Your task to perform on an android device: When is my next appointment? Image 0: 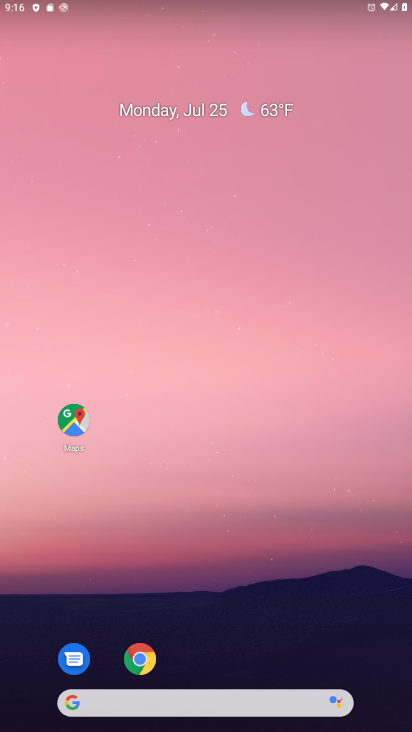
Step 0: drag from (192, 728) to (207, 86)
Your task to perform on an android device: When is my next appointment? Image 1: 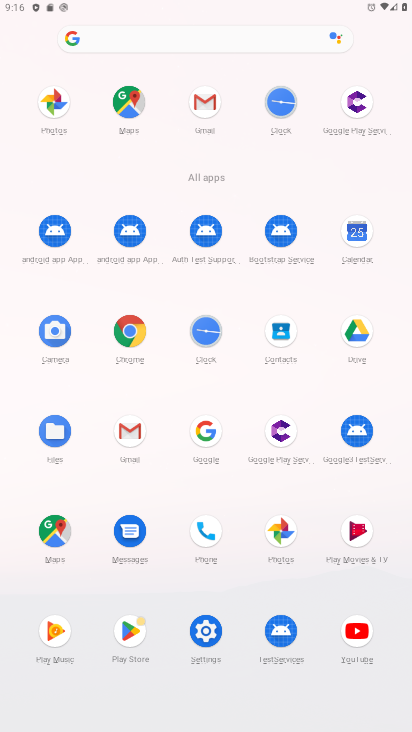
Step 1: click (364, 226)
Your task to perform on an android device: When is my next appointment? Image 2: 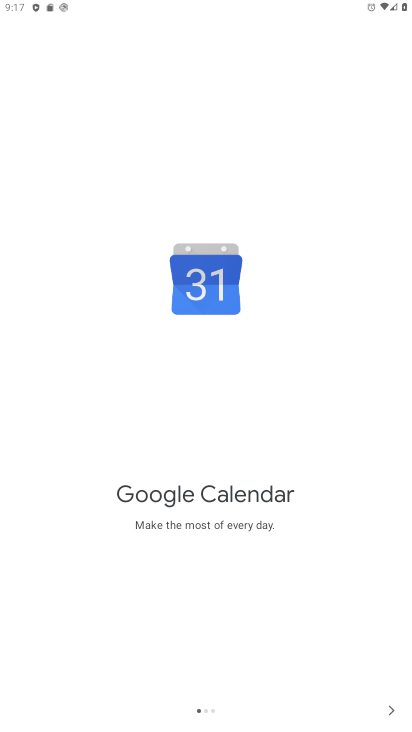
Step 2: click (390, 711)
Your task to perform on an android device: When is my next appointment? Image 3: 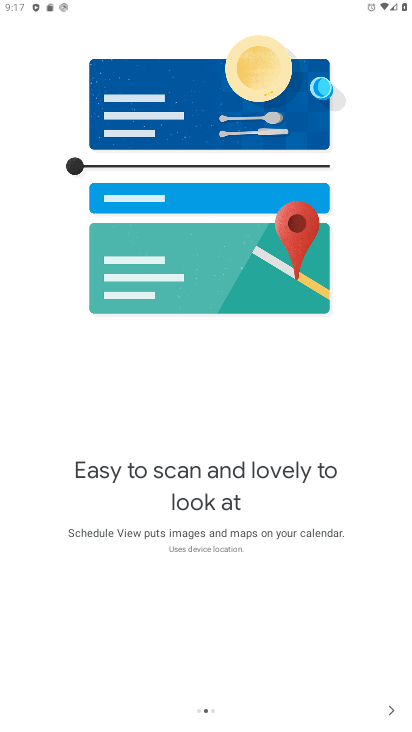
Step 3: click (390, 711)
Your task to perform on an android device: When is my next appointment? Image 4: 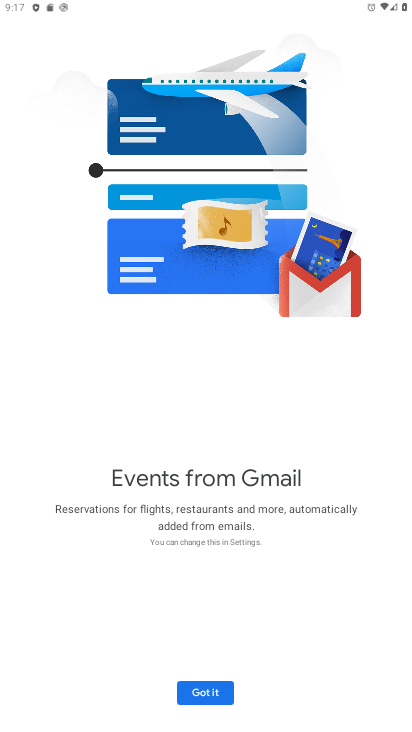
Step 4: click (217, 683)
Your task to perform on an android device: When is my next appointment? Image 5: 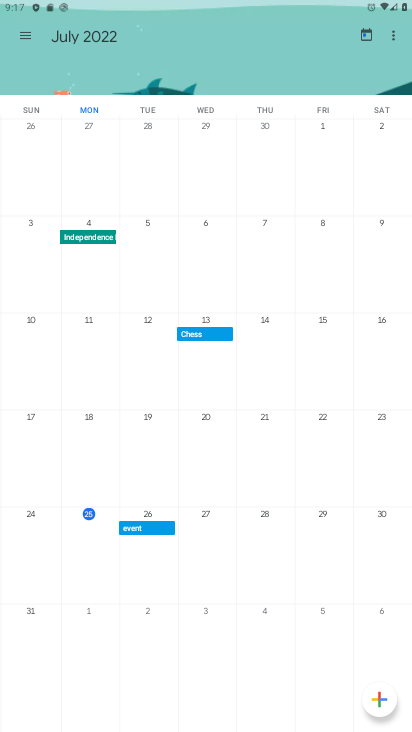
Step 5: click (149, 122)
Your task to perform on an android device: When is my next appointment? Image 6: 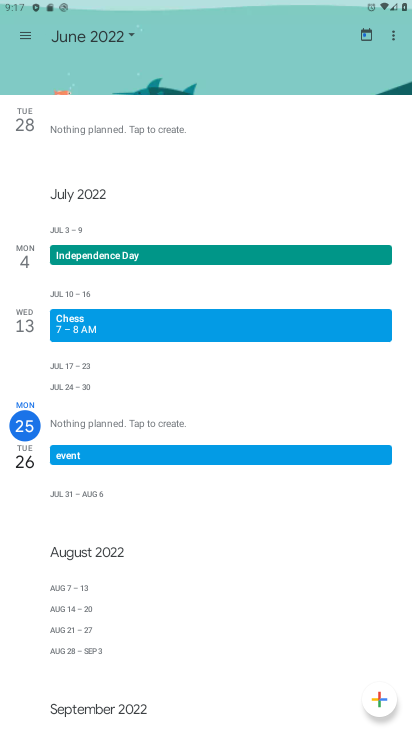
Step 6: click (23, 117)
Your task to perform on an android device: When is my next appointment? Image 7: 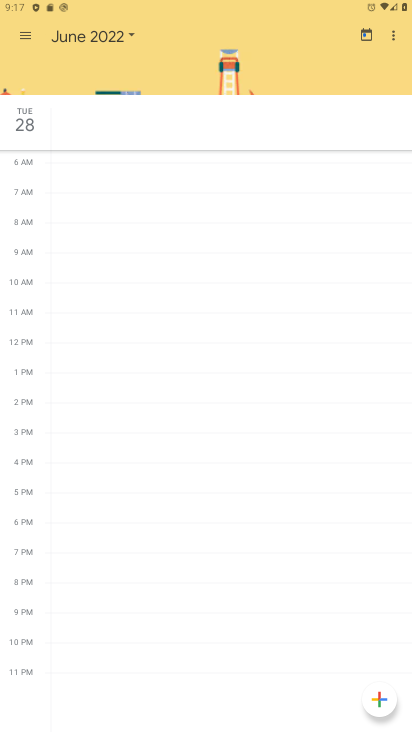
Step 7: task complete